Your task to perform on an android device: empty trash in the gmail app Image 0: 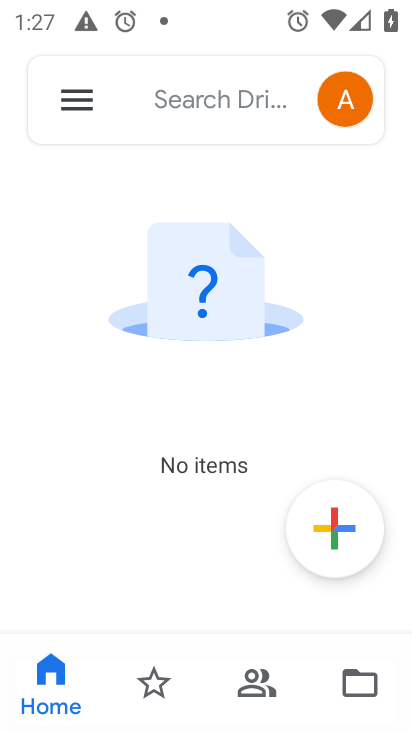
Step 0: press home button
Your task to perform on an android device: empty trash in the gmail app Image 1: 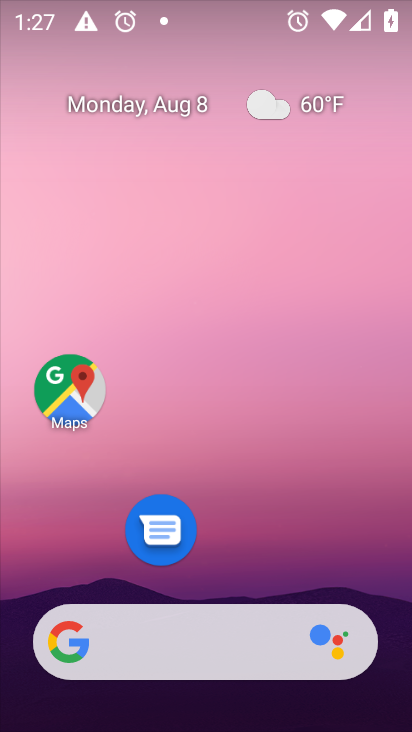
Step 1: drag from (234, 595) to (233, 116)
Your task to perform on an android device: empty trash in the gmail app Image 2: 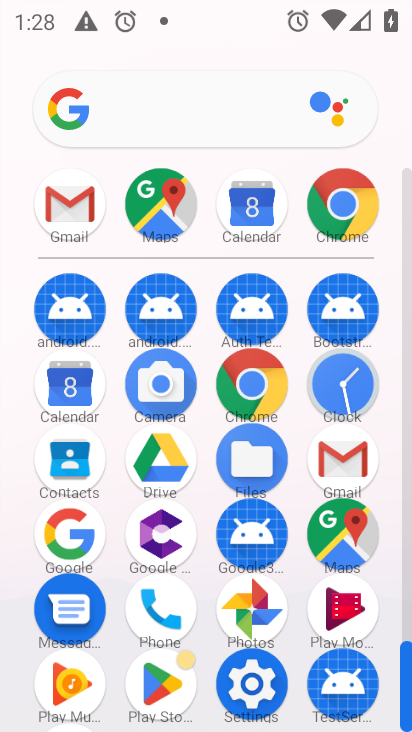
Step 2: click (347, 454)
Your task to perform on an android device: empty trash in the gmail app Image 3: 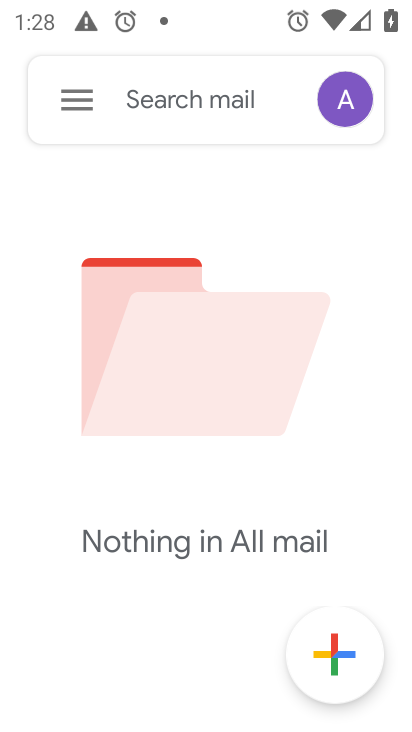
Step 3: click (71, 87)
Your task to perform on an android device: empty trash in the gmail app Image 4: 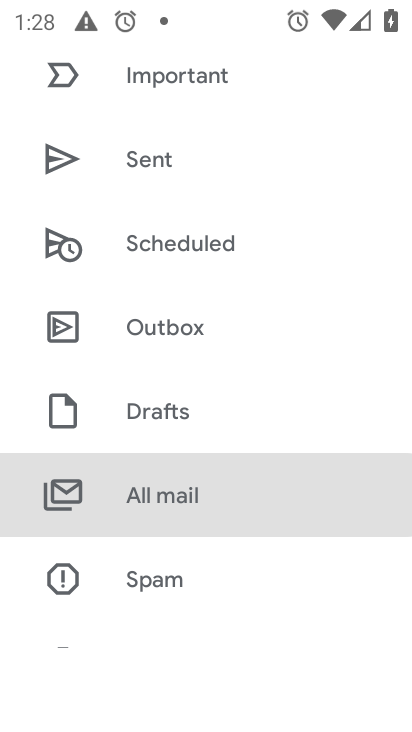
Step 4: drag from (198, 551) to (204, 329)
Your task to perform on an android device: empty trash in the gmail app Image 5: 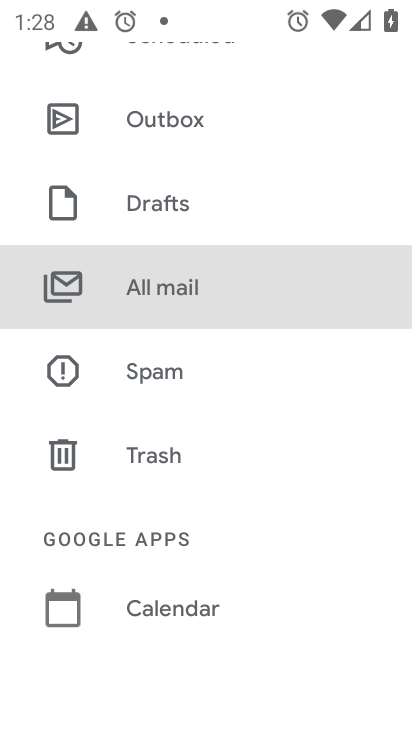
Step 5: drag from (203, 184) to (203, 142)
Your task to perform on an android device: empty trash in the gmail app Image 6: 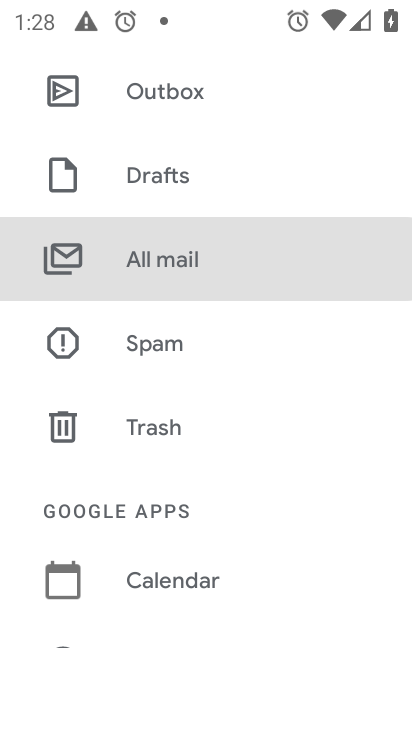
Step 6: click (160, 423)
Your task to perform on an android device: empty trash in the gmail app Image 7: 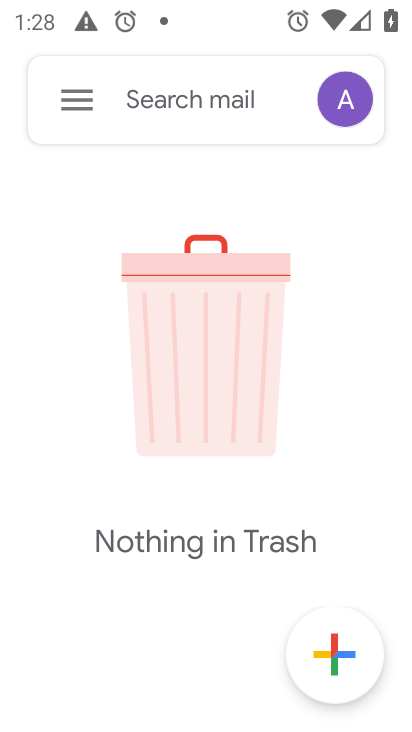
Step 7: task complete